Your task to perform on an android device: turn on javascript in the chrome app Image 0: 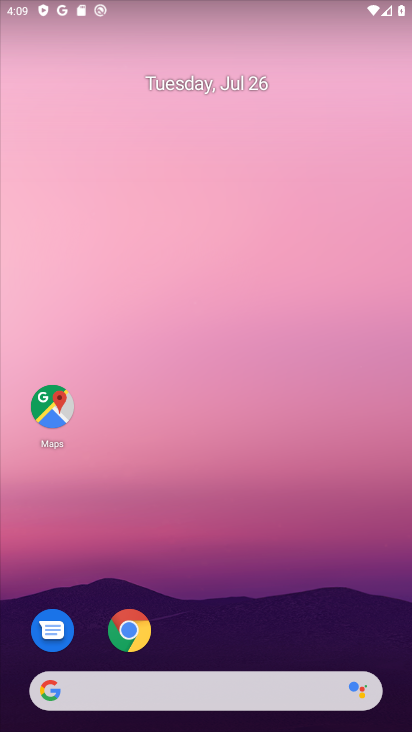
Step 0: drag from (286, 436) to (303, 59)
Your task to perform on an android device: turn on javascript in the chrome app Image 1: 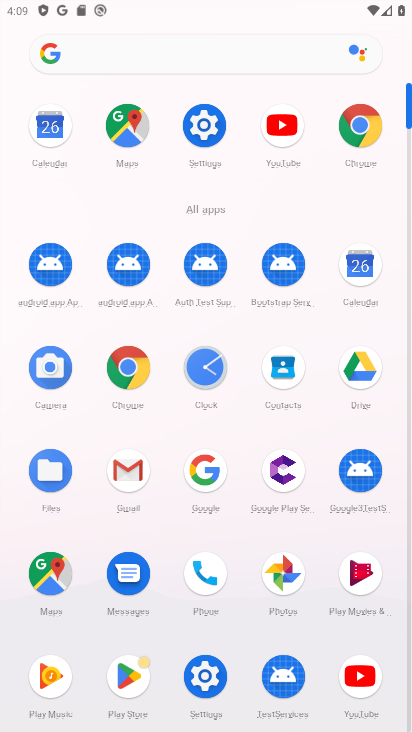
Step 1: click (361, 127)
Your task to perform on an android device: turn on javascript in the chrome app Image 2: 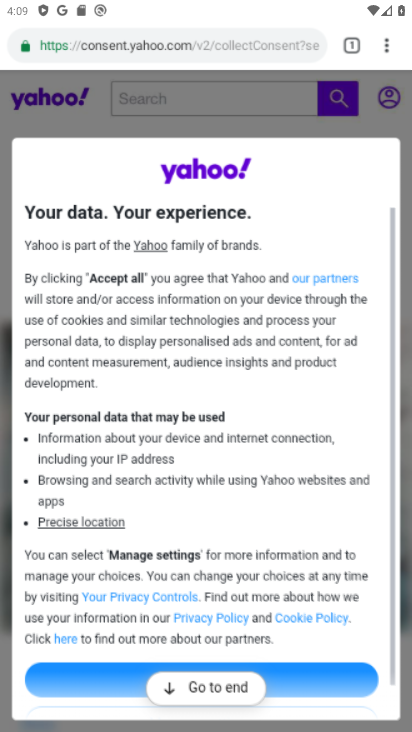
Step 2: drag from (386, 47) to (245, 537)
Your task to perform on an android device: turn on javascript in the chrome app Image 3: 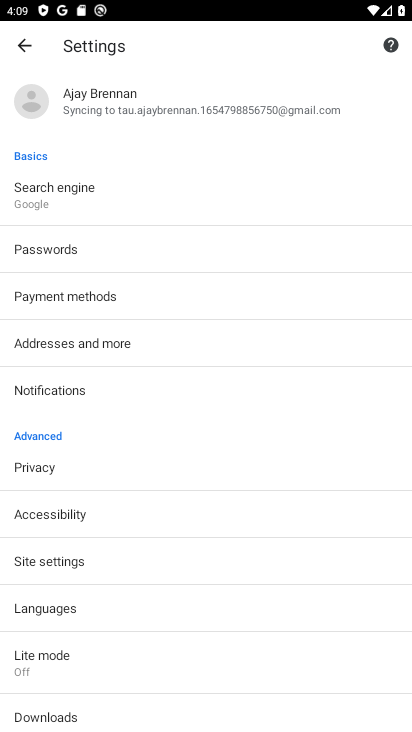
Step 3: click (72, 562)
Your task to perform on an android device: turn on javascript in the chrome app Image 4: 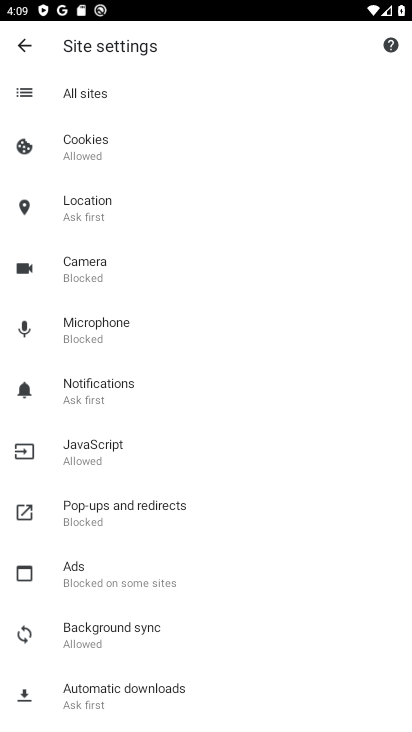
Step 4: click (126, 448)
Your task to perform on an android device: turn on javascript in the chrome app Image 5: 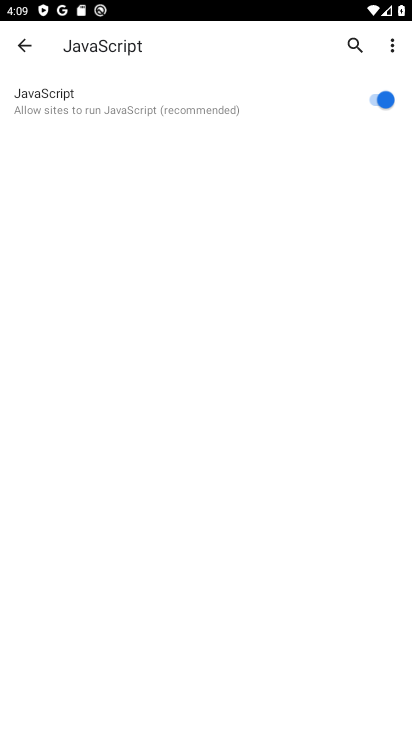
Step 5: task complete